Your task to perform on an android device: Is it going to rain this weekend? Image 0: 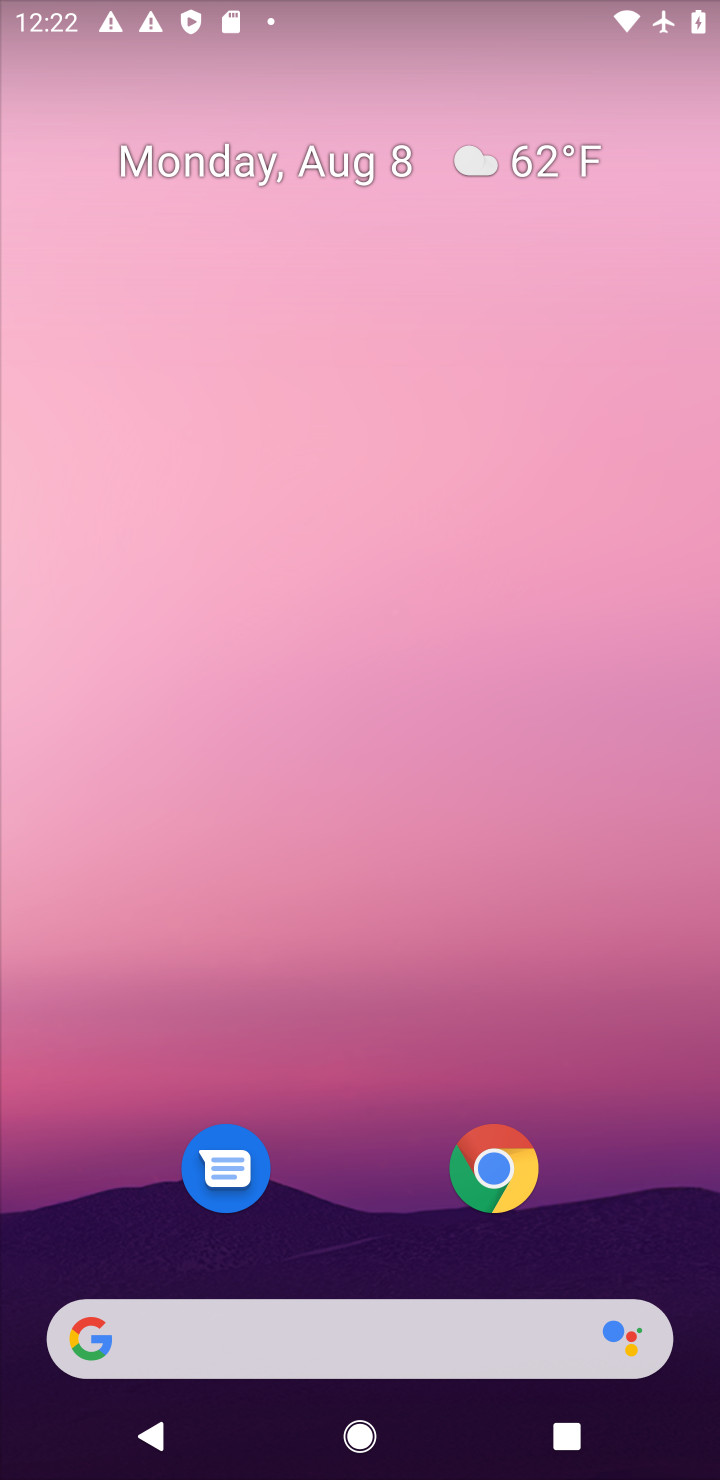
Step 0: click (274, 1324)
Your task to perform on an android device: Is it going to rain this weekend? Image 1: 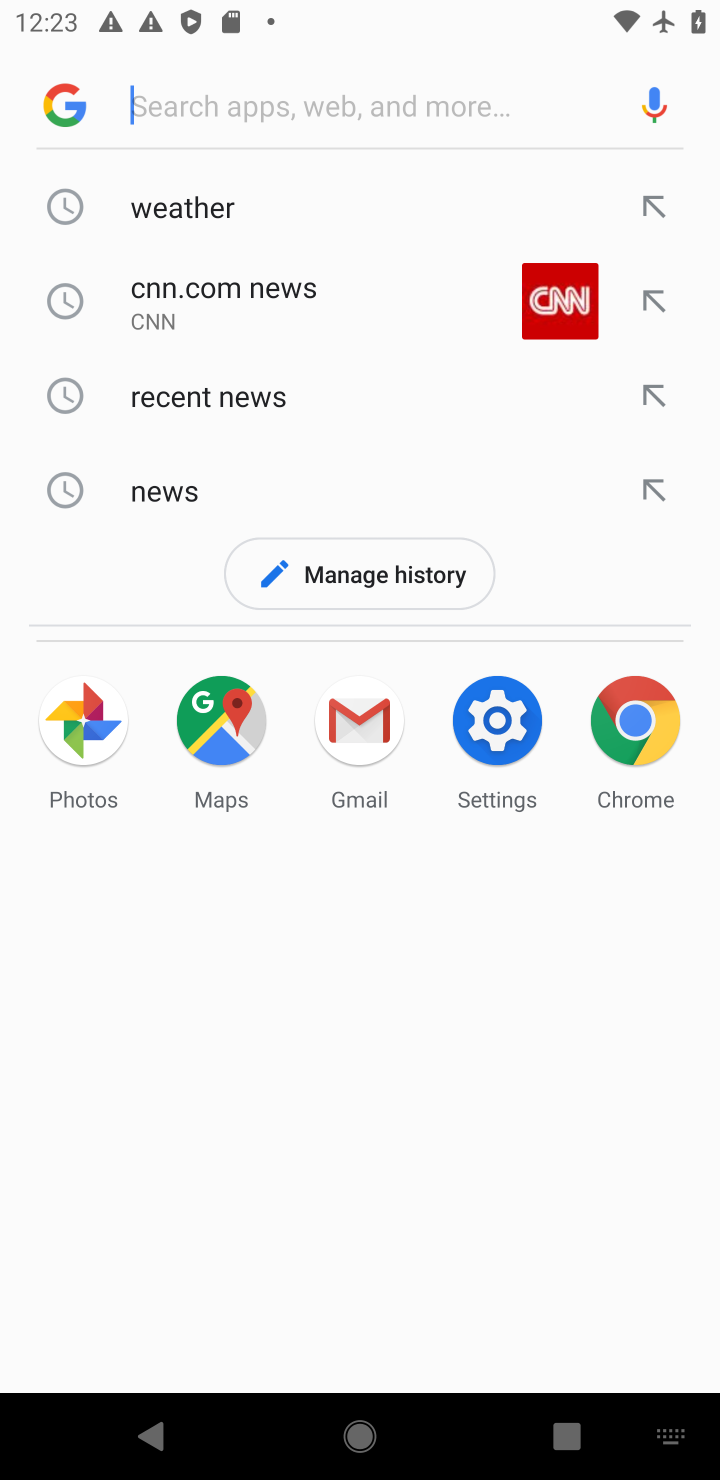
Step 1: click (201, 217)
Your task to perform on an android device: Is it going to rain this weekend? Image 2: 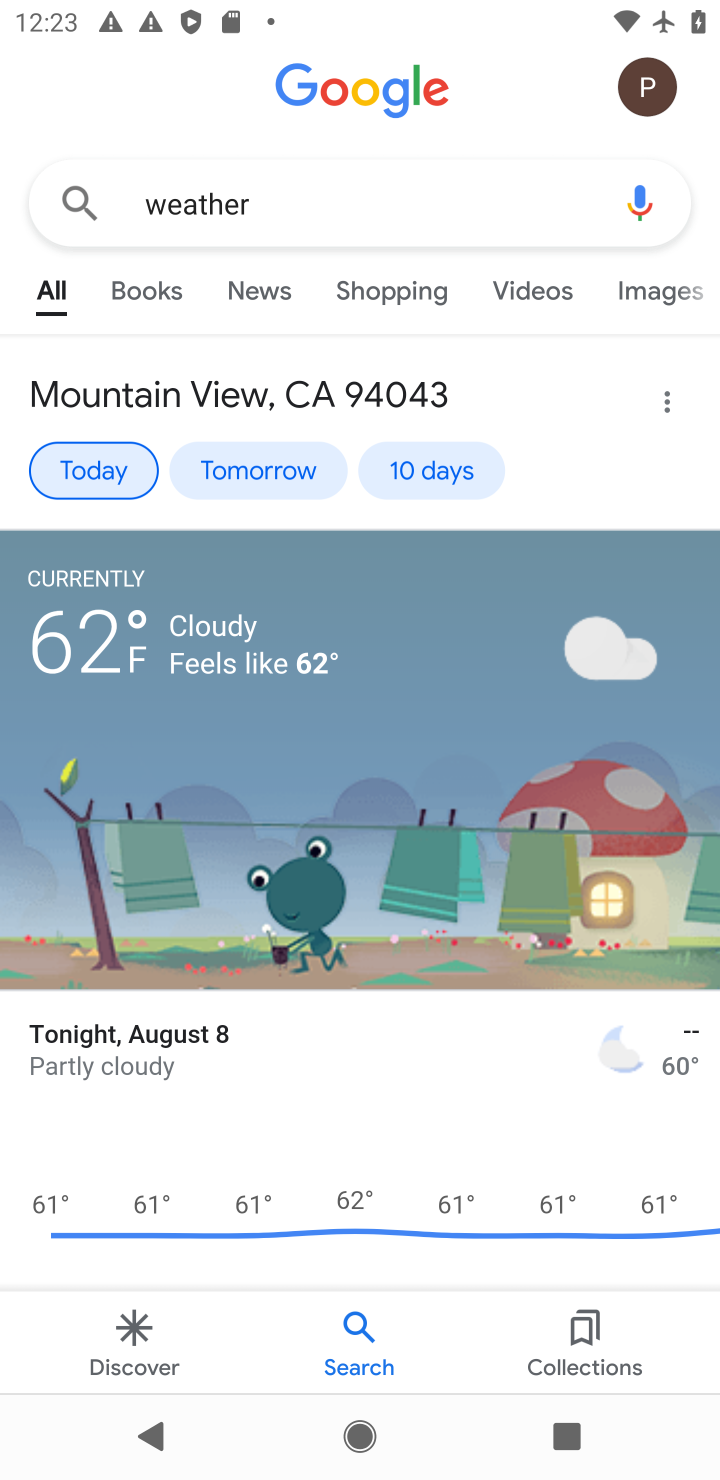
Step 2: click (409, 480)
Your task to perform on an android device: Is it going to rain this weekend? Image 3: 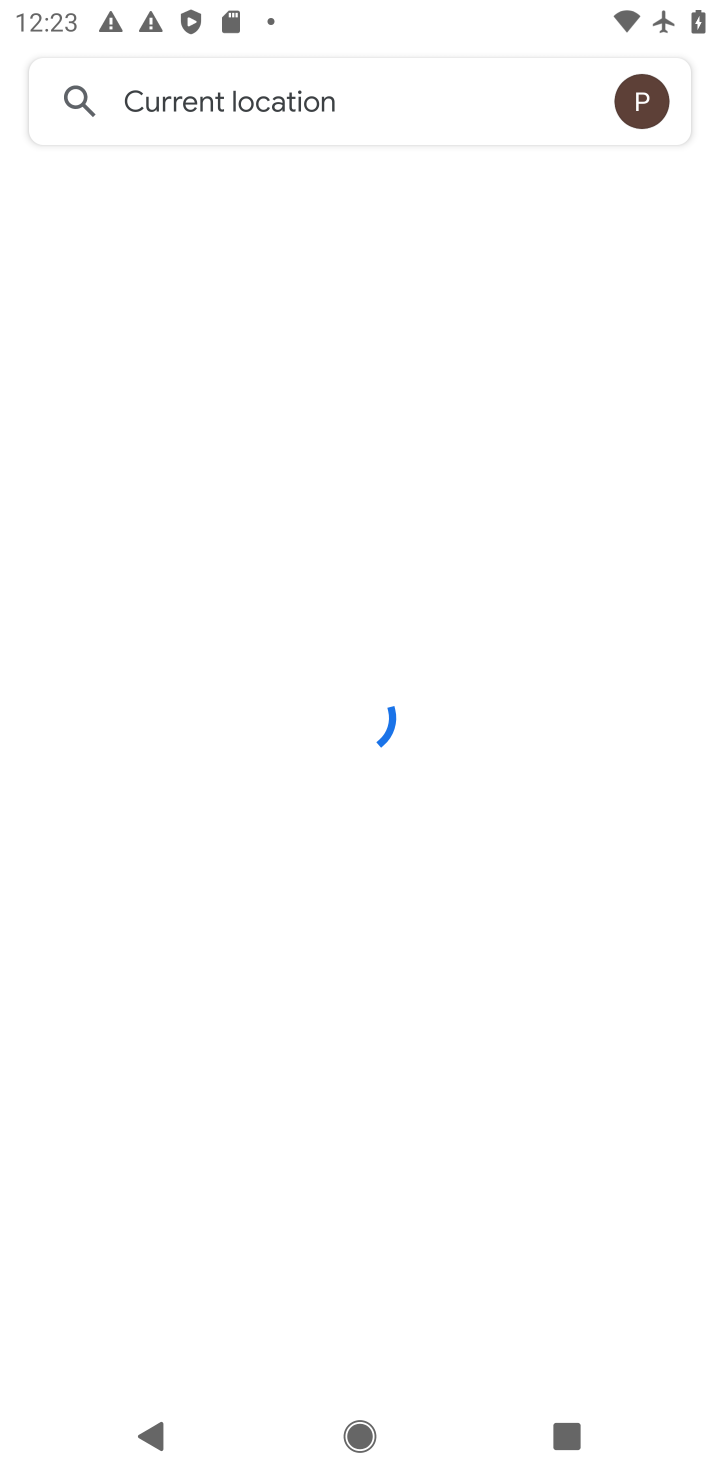
Step 3: task complete